Your task to perform on an android device: turn on bluetooth scan Image 0: 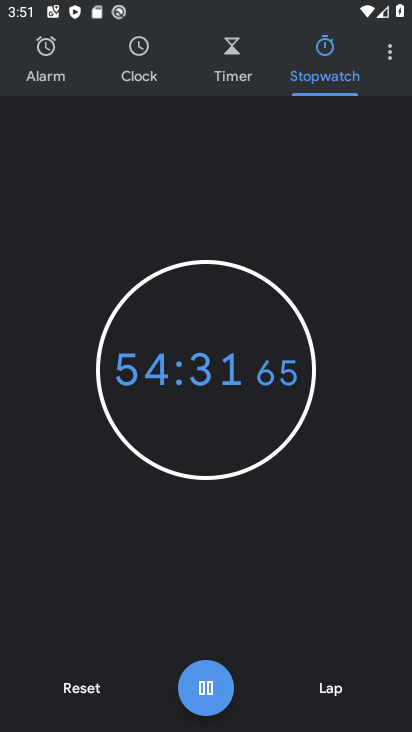
Step 0: press home button
Your task to perform on an android device: turn on bluetooth scan Image 1: 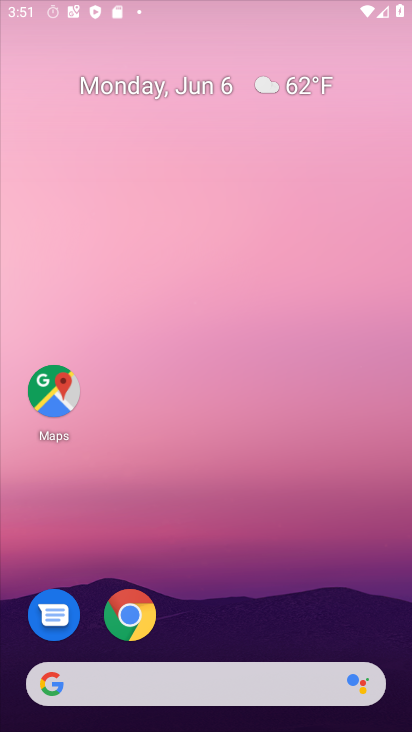
Step 1: drag from (326, 367) to (330, 85)
Your task to perform on an android device: turn on bluetooth scan Image 2: 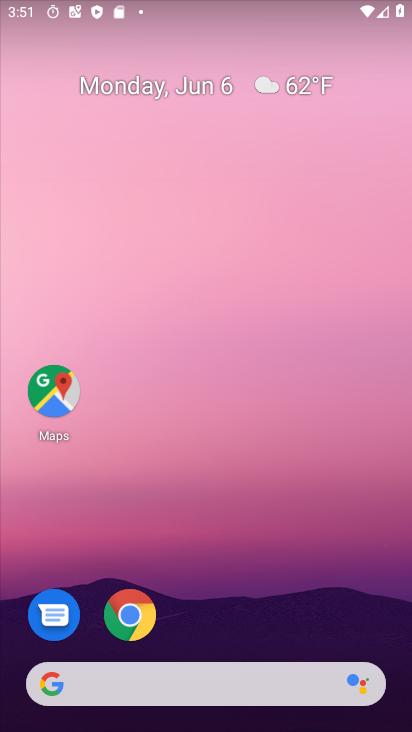
Step 2: drag from (238, 607) to (326, 14)
Your task to perform on an android device: turn on bluetooth scan Image 3: 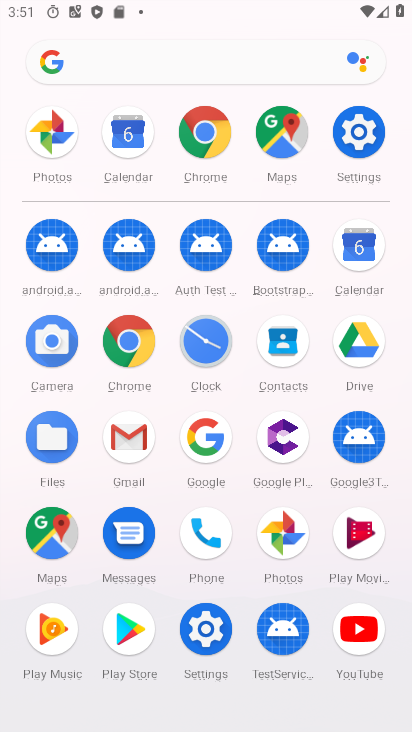
Step 3: click (359, 142)
Your task to perform on an android device: turn on bluetooth scan Image 4: 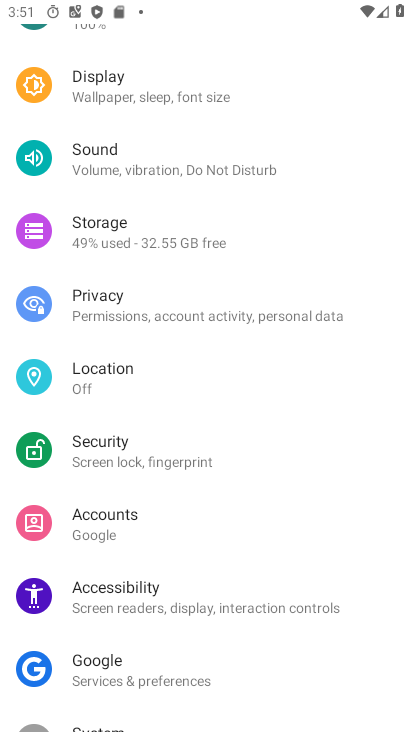
Step 4: click (128, 385)
Your task to perform on an android device: turn on bluetooth scan Image 5: 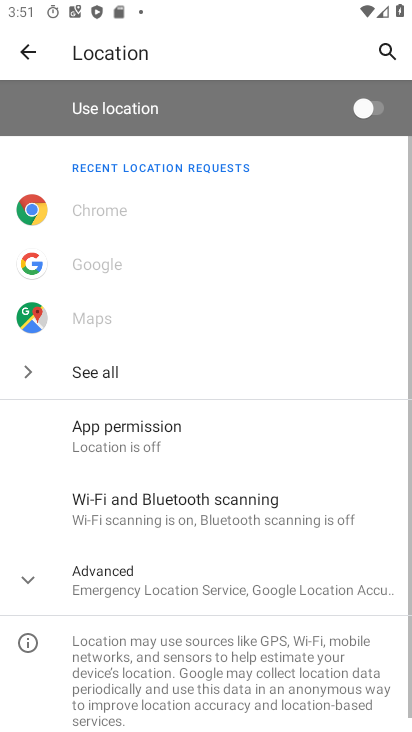
Step 5: click (247, 587)
Your task to perform on an android device: turn on bluetooth scan Image 6: 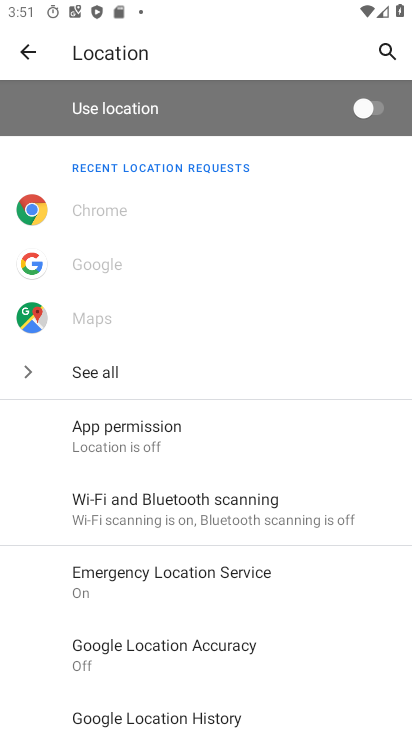
Step 6: click (260, 518)
Your task to perform on an android device: turn on bluetooth scan Image 7: 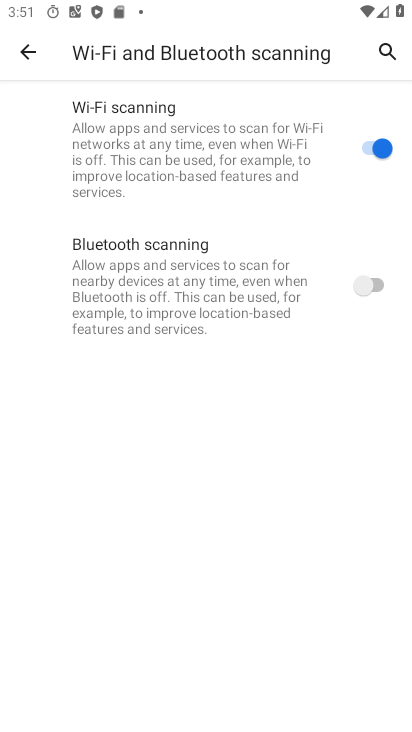
Step 7: click (376, 278)
Your task to perform on an android device: turn on bluetooth scan Image 8: 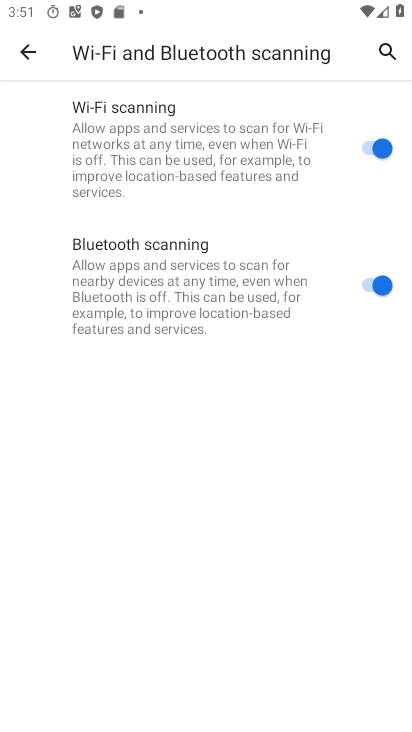
Step 8: task complete